Your task to perform on an android device: delete the emails in spam in the gmail app Image 0: 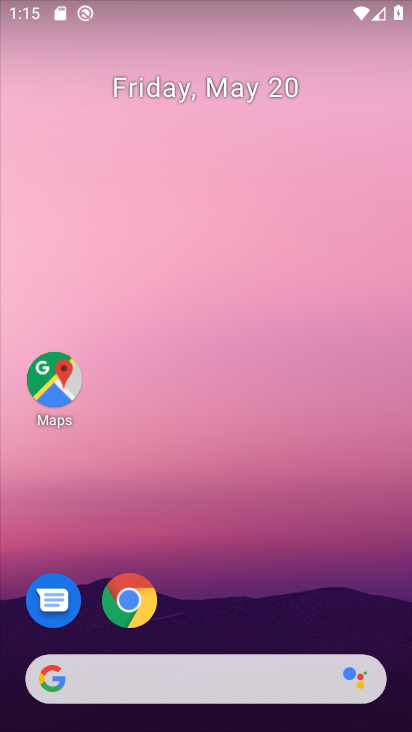
Step 0: drag from (306, 484) to (187, 14)
Your task to perform on an android device: delete the emails in spam in the gmail app Image 1: 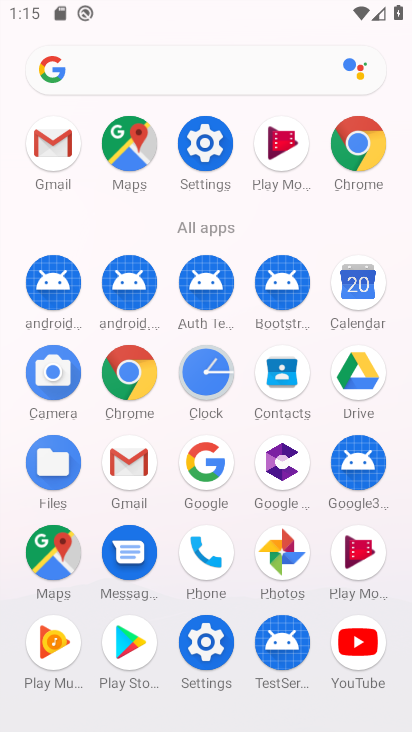
Step 1: click (61, 157)
Your task to perform on an android device: delete the emails in spam in the gmail app Image 2: 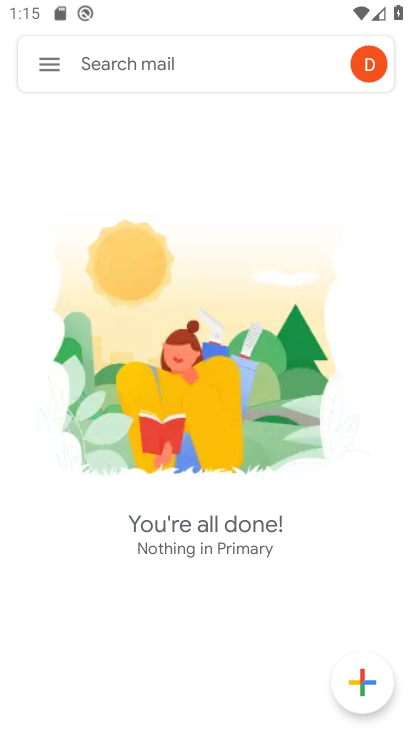
Step 2: click (45, 70)
Your task to perform on an android device: delete the emails in spam in the gmail app Image 3: 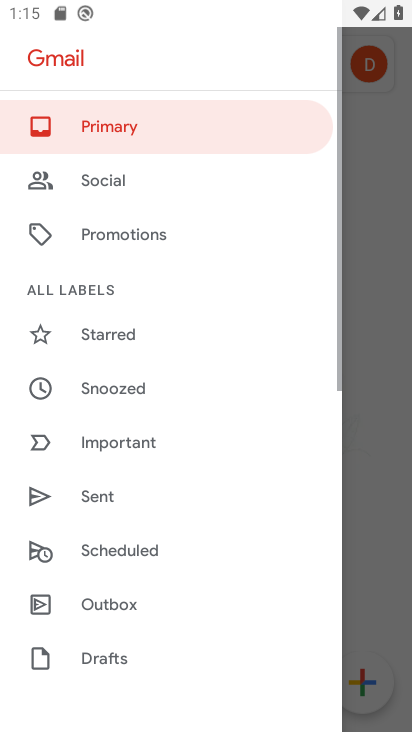
Step 3: drag from (139, 575) to (140, 235)
Your task to perform on an android device: delete the emails in spam in the gmail app Image 4: 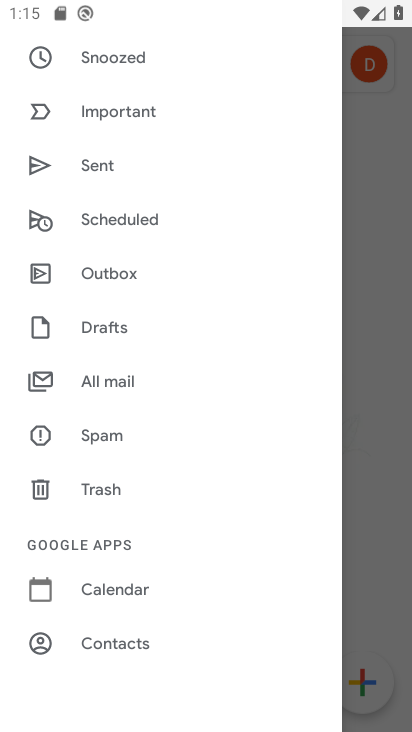
Step 4: click (146, 428)
Your task to perform on an android device: delete the emails in spam in the gmail app Image 5: 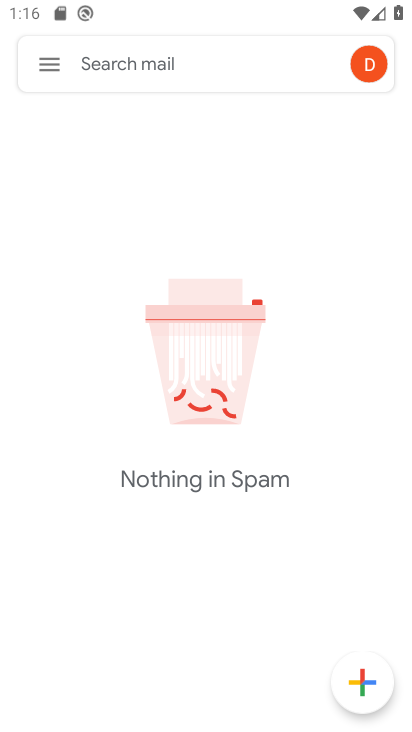
Step 5: task complete